Your task to perform on an android device: Go to Yahoo.com Image 0: 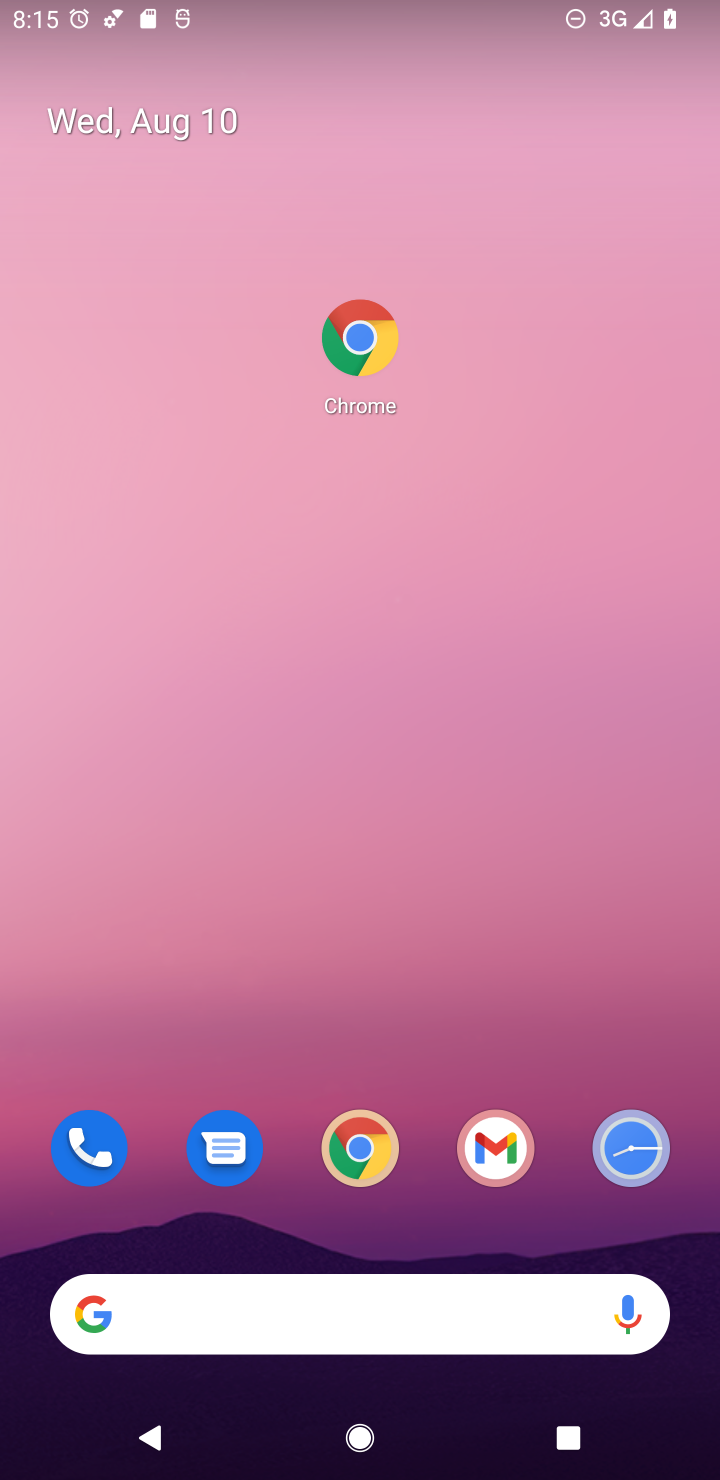
Step 0: click (351, 1169)
Your task to perform on an android device: Go to Yahoo.com Image 1: 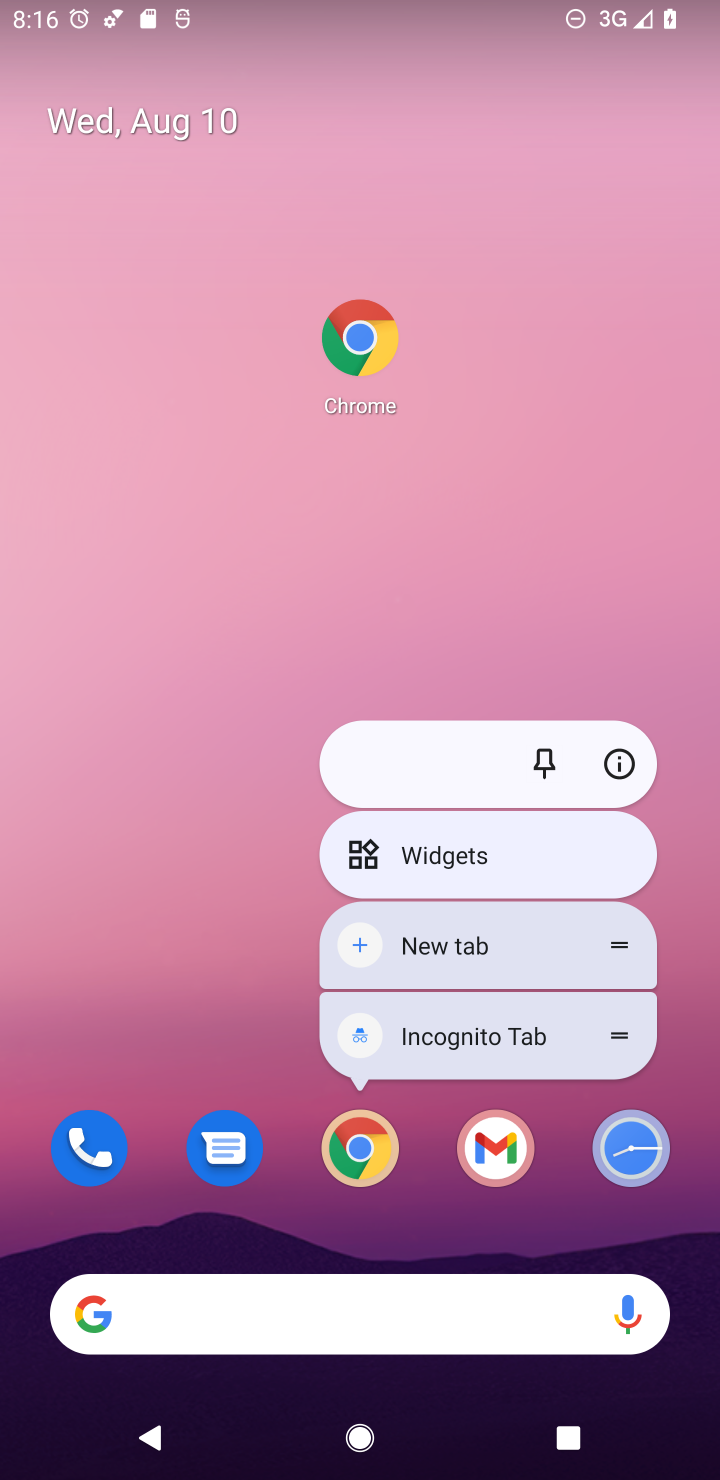
Step 1: click (376, 330)
Your task to perform on an android device: Go to Yahoo.com Image 2: 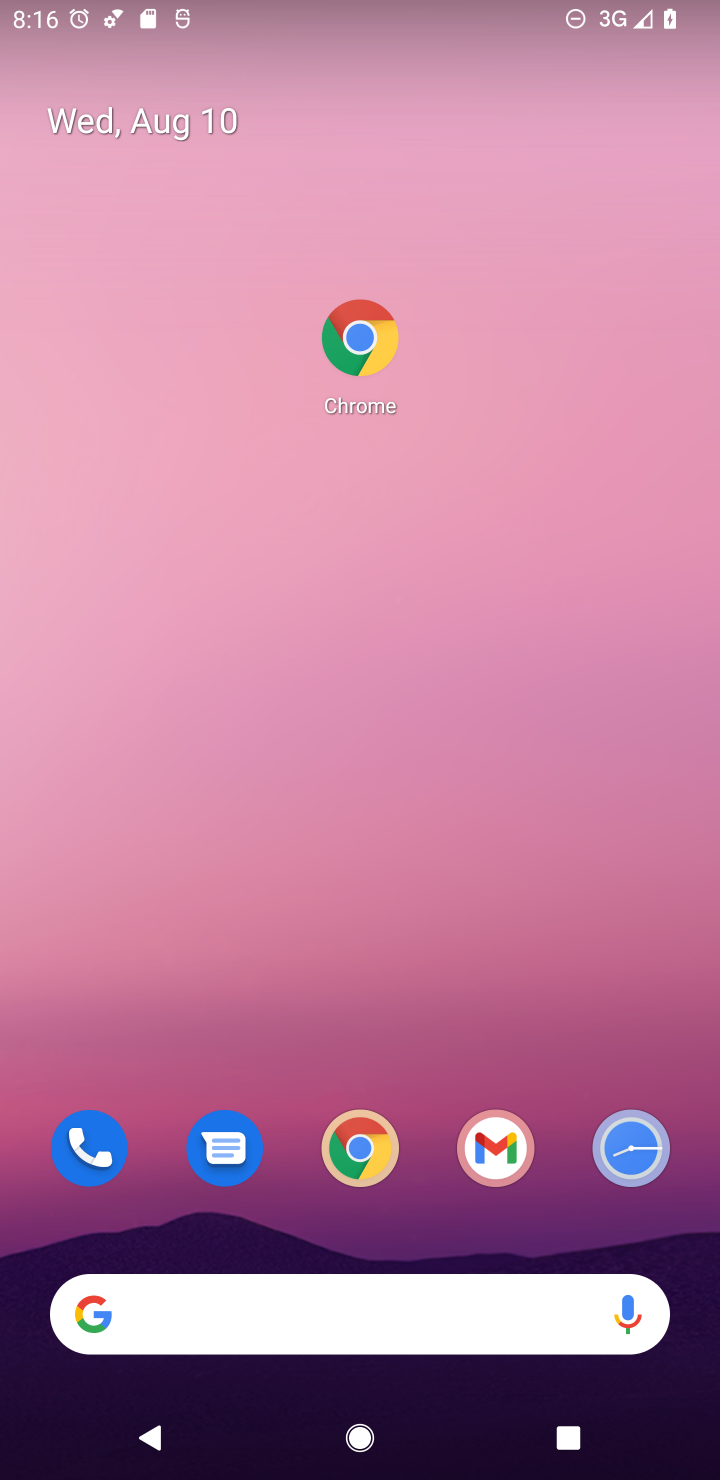
Step 2: click (376, 330)
Your task to perform on an android device: Go to Yahoo.com Image 3: 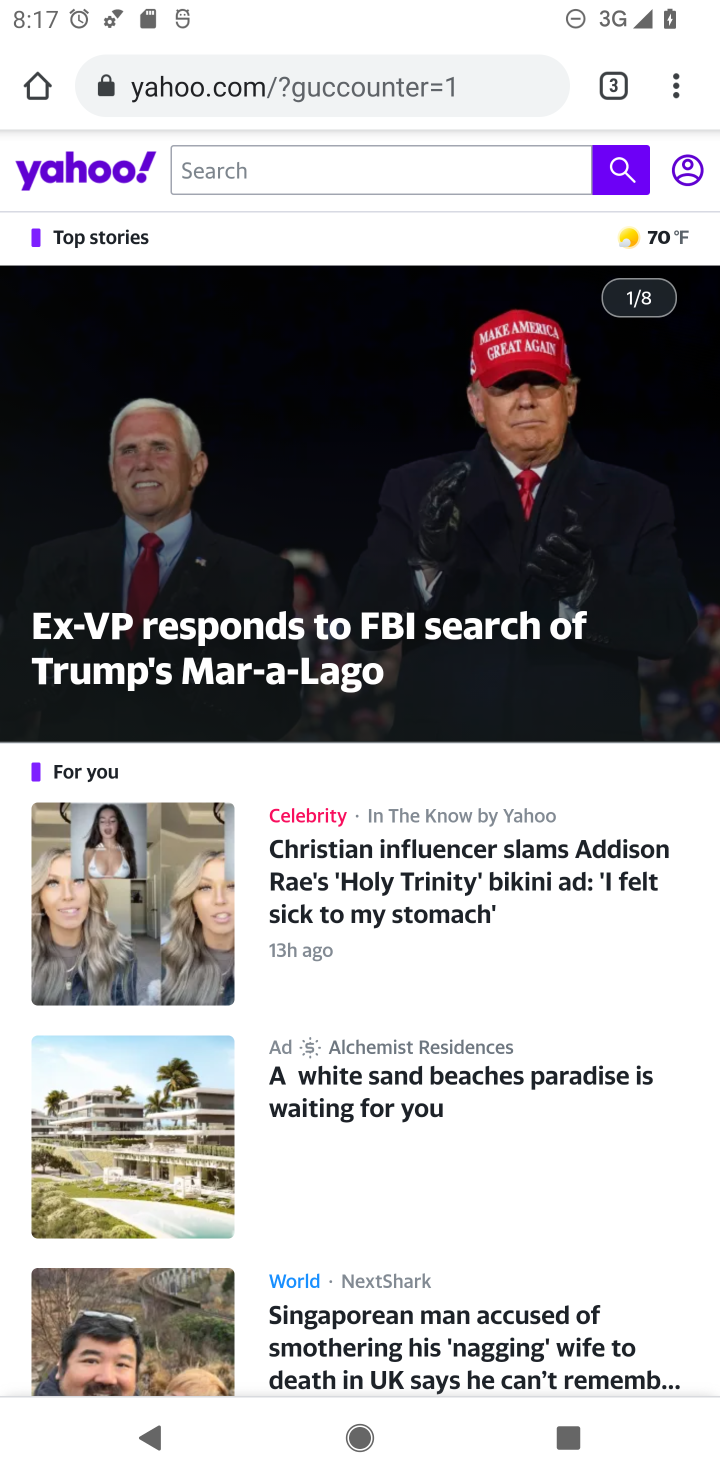
Step 3: task complete